Your task to perform on an android device: find snoozed emails in the gmail app Image 0: 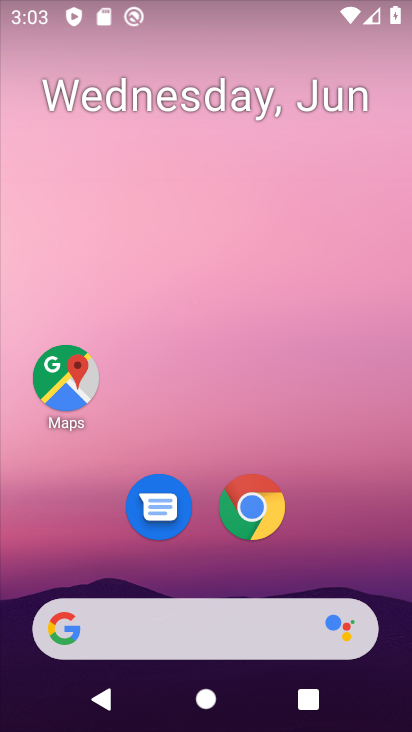
Step 0: drag from (220, 563) to (191, 156)
Your task to perform on an android device: find snoozed emails in the gmail app Image 1: 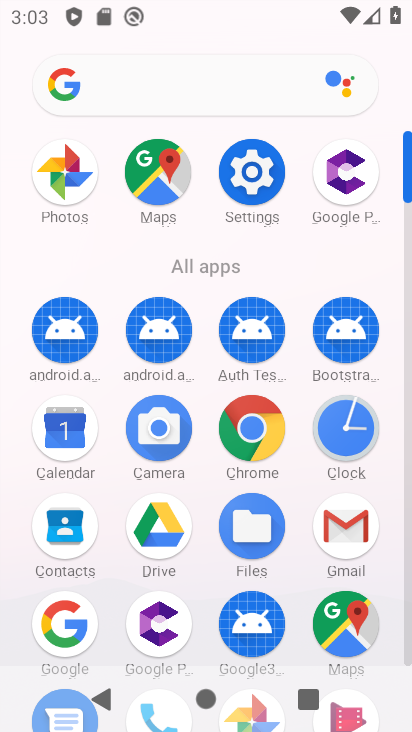
Step 1: click (338, 512)
Your task to perform on an android device: find snoozed emails in the gmail app Image 2: 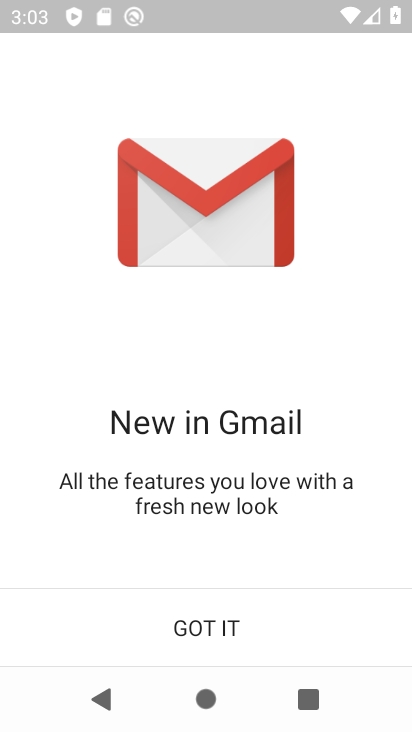
Step 2: click (179, 624)
Your task to perform on an android device: find snoozed emails in the gmail app Image 3: 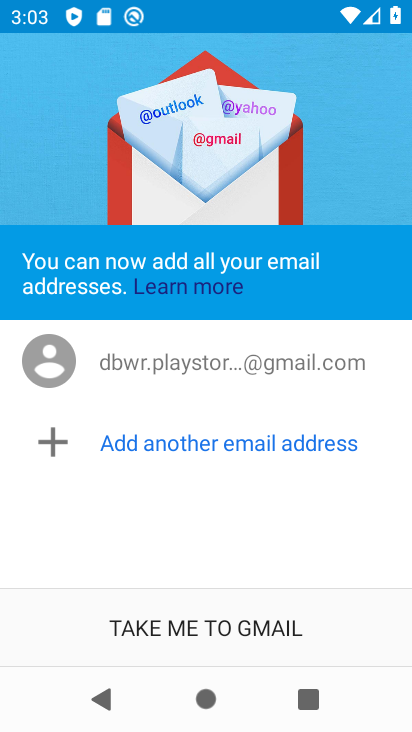
Step 3: click (179, 624)
Your task to perform on an android device: find snoozed emails in the gmail app Image 4: 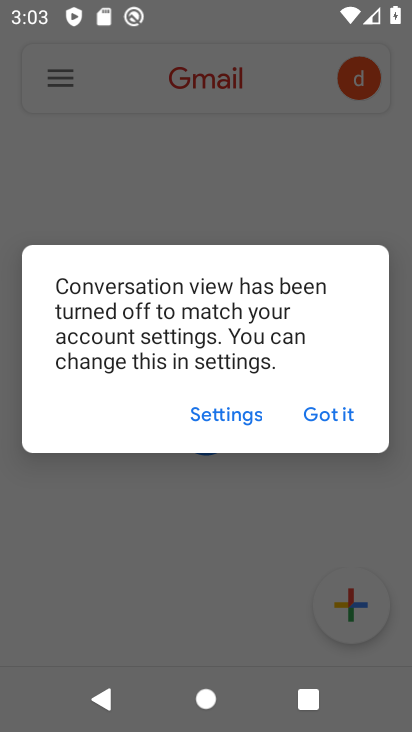
Step 4: click (326, 440)
Your task to perform on an android device: find snoozed emails in the gmail app Image 5: 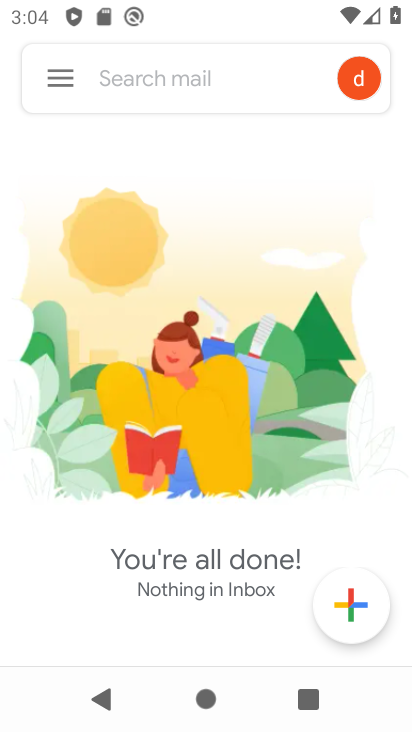
Step 5: click (89, 87)
Your task to perform on an android device: find snoozed emails in the gmail app Image 6: 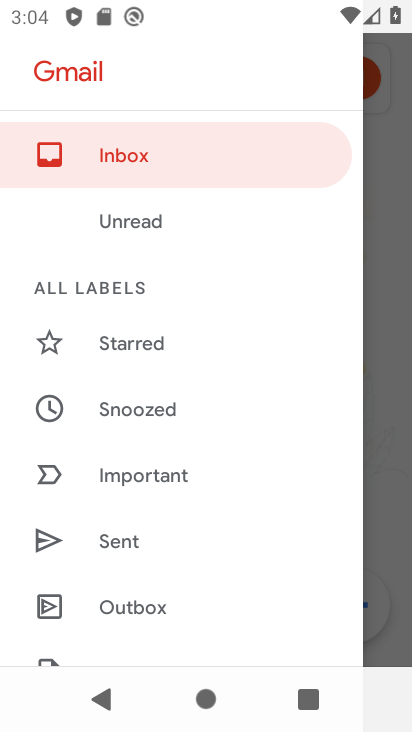
Step 6: click (162, 416)
Your task to perform on an android device: find snoozed emails in the gmail app Image 7: 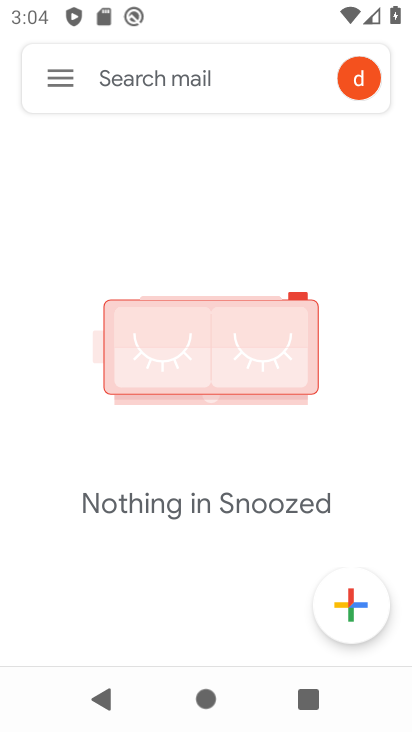
Step 7: task complete